Your task to perform on an android device: toggle notification dots Image 0: 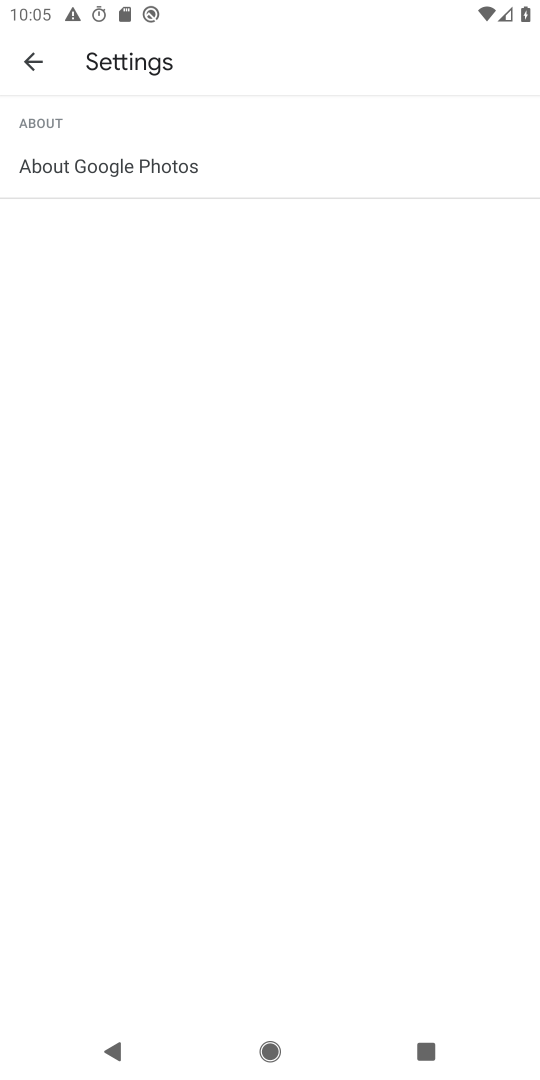
Step 0: press home button
Your task to perform on an android device: toggle notification dots Image 1: 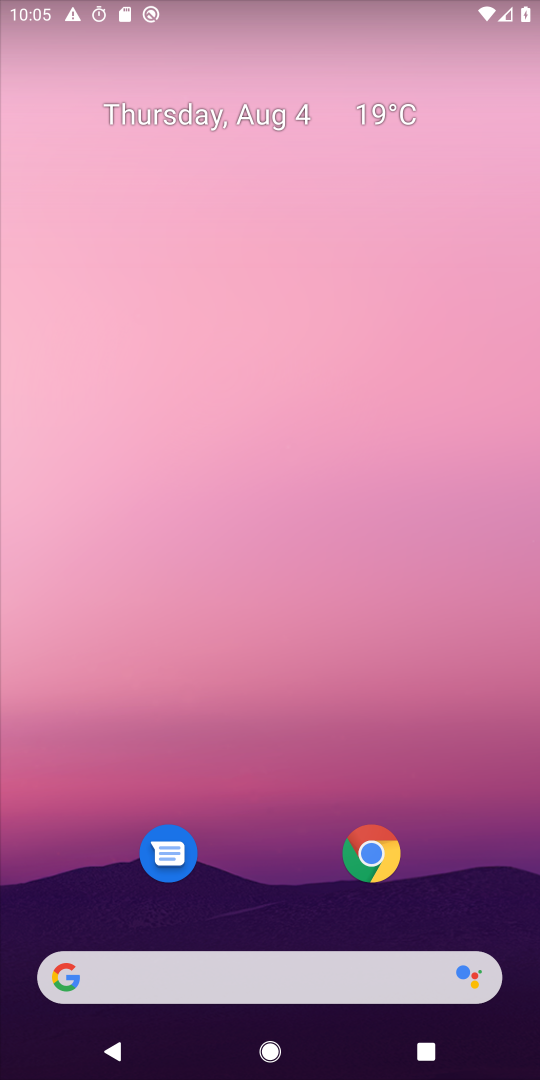
Step 1: drag from (236, 835) to (277, 0)
Your task to perform on an android device: toggle notification dots Image 2: 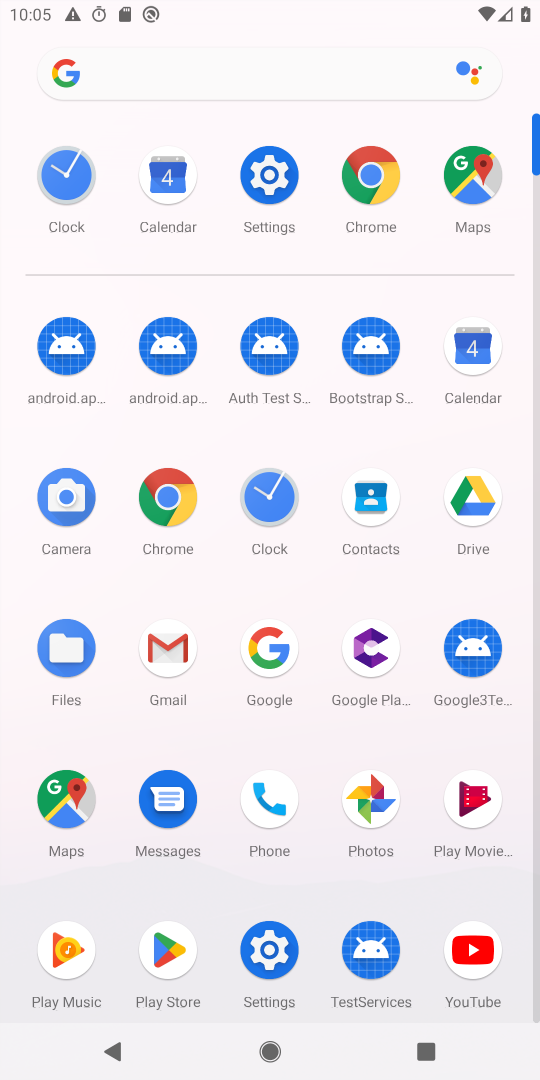
Step 2: click (285, 182)
Your task to perform on an android device: toggle notification dots Image 3: 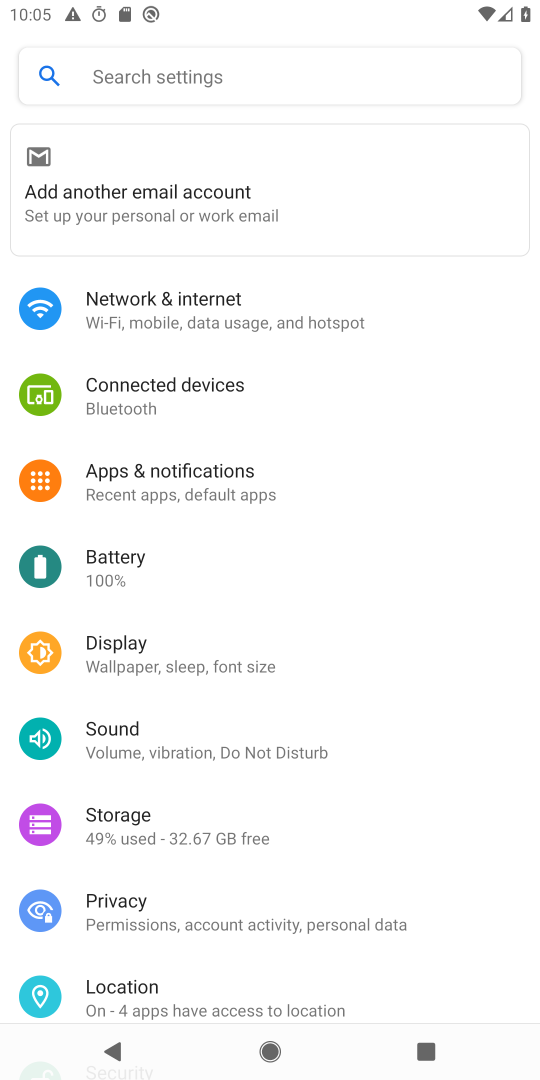
Step 3: click (188, 483)
Your task to perform on an android device: toggle notification dots Image 4: 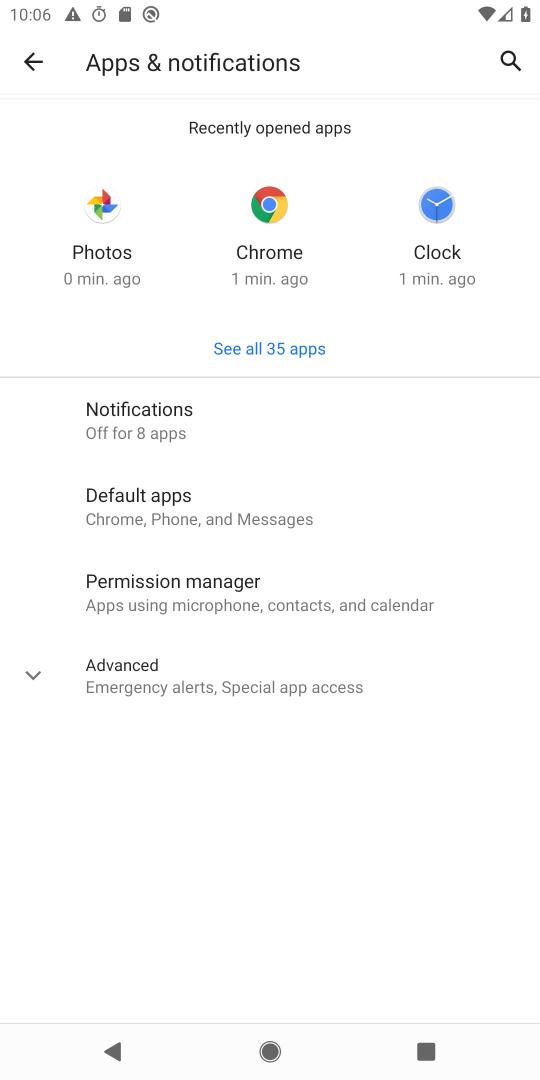
Step 4: click (161, 423)
Your task to perform on an android device: toggle notification dots Image 5: 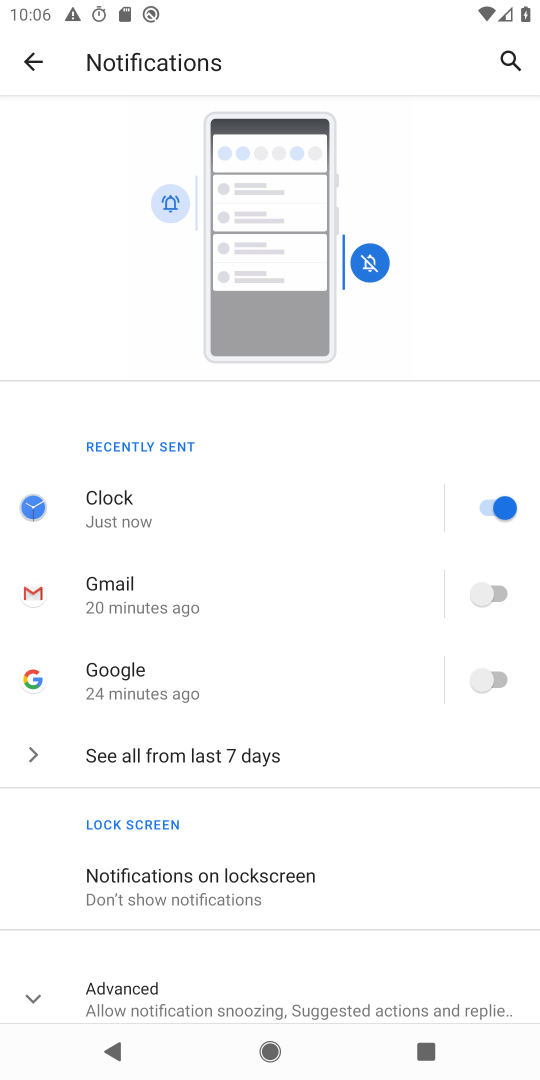
Step 5: drag from (232, 883) to (238, 614)
Your task to perform on an android device: toggle notification dots Image 6: 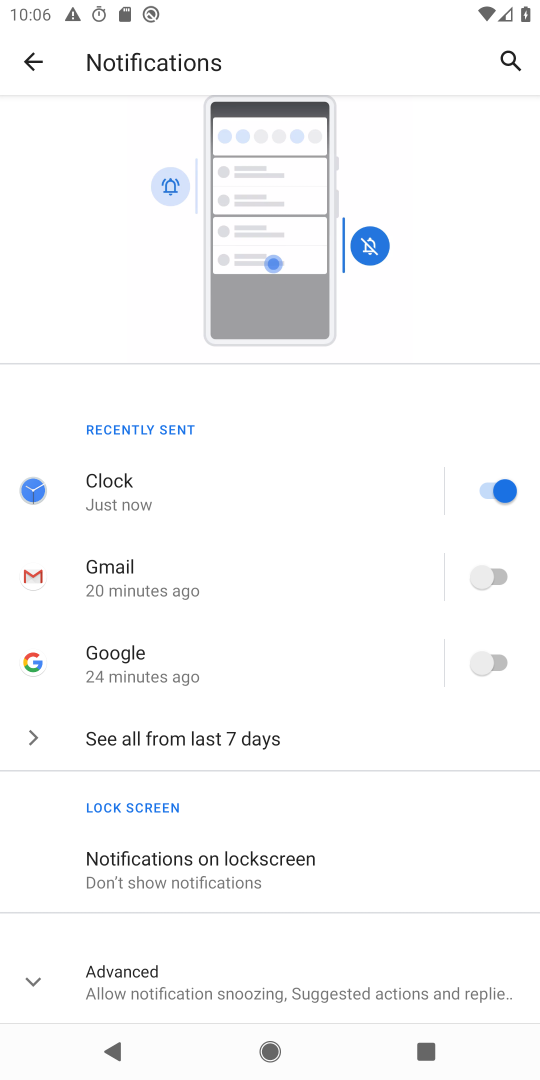
Step 6: click (180, 977)
Your task to perform on an android device: toggle notification dots Image 7: 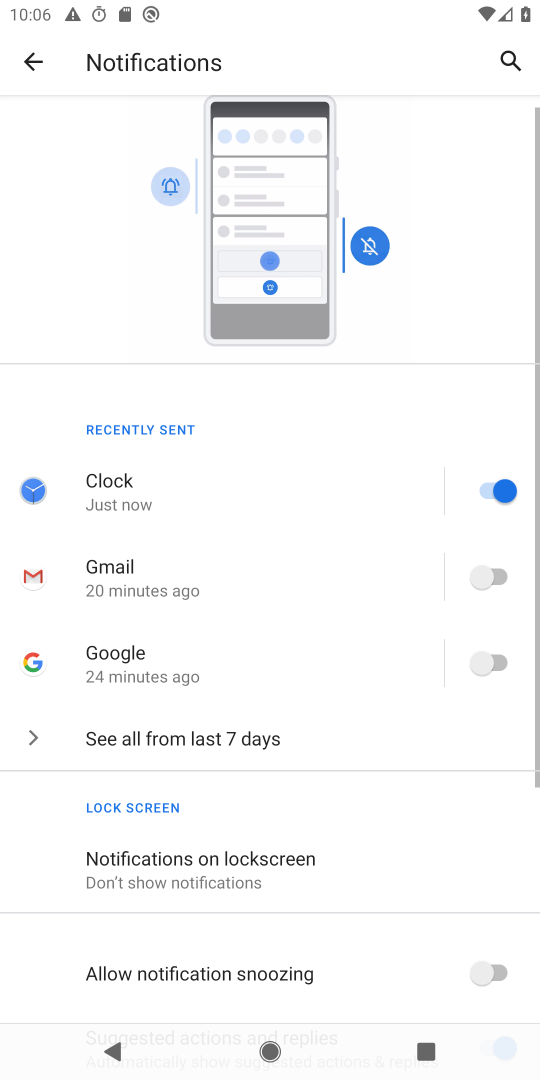
Step 7: drag from (220, 957) to (278, 277)
Your task to perform on an android device: toggle notification dots Image 8: 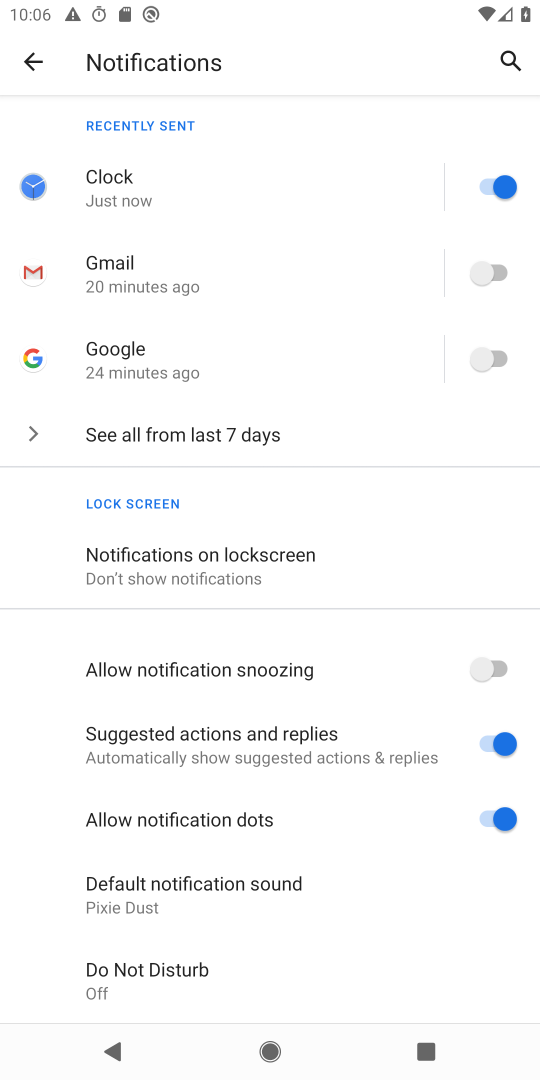
Step 8: click (467, 818)
Your task to perform on an android device: toggle notification dots Image 9: 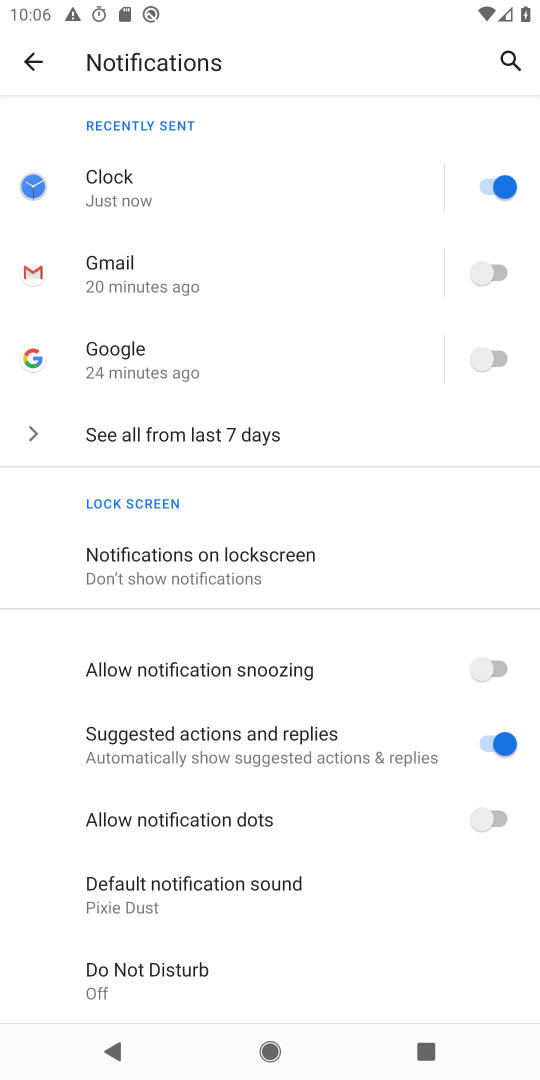
Step 9: task complete